Your task to perform on an android device: Open privacy settings Image 0: 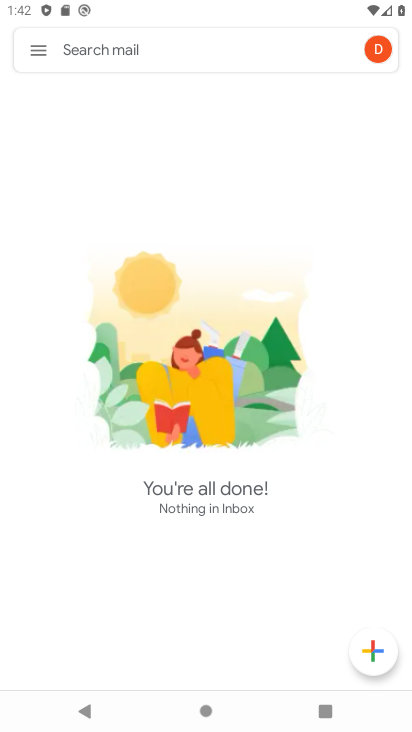
Step 0: press back button
Your task to perform on an android device: Open privacy settings Image 1: 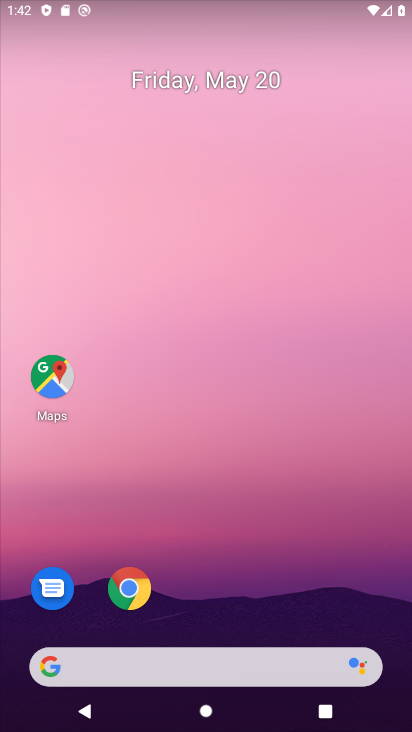
Step 1: drag from (286, 663) to (137, 9)
Your task to perform on an android device: Open privacy settings Image 2: 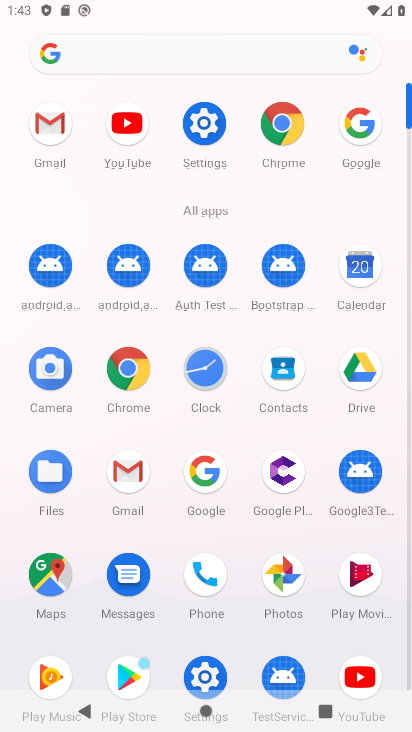
Step 2: click (202, 121)
Your task to perform on an android device: Open privacy settings Image 3: 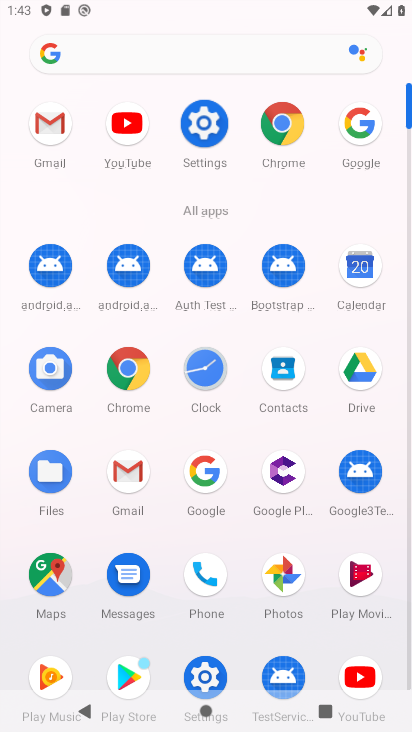
Step 3: click (197, 126)
Your task to perform on an android device: Open privacy settings Image 4: 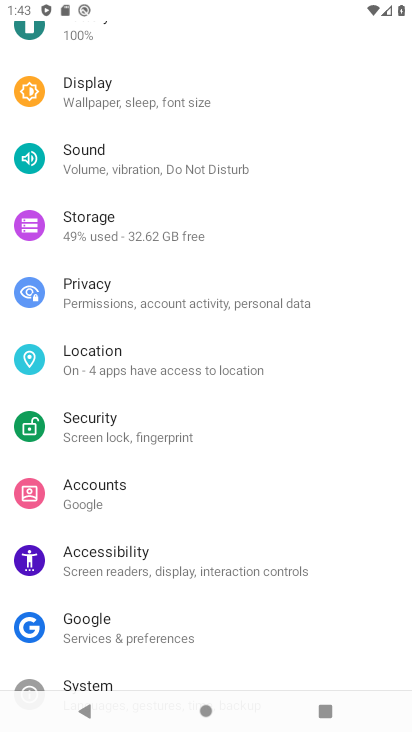
Step 4: click (93, 279)
Your task to perform on an android device: Open privacy settings Image 5: 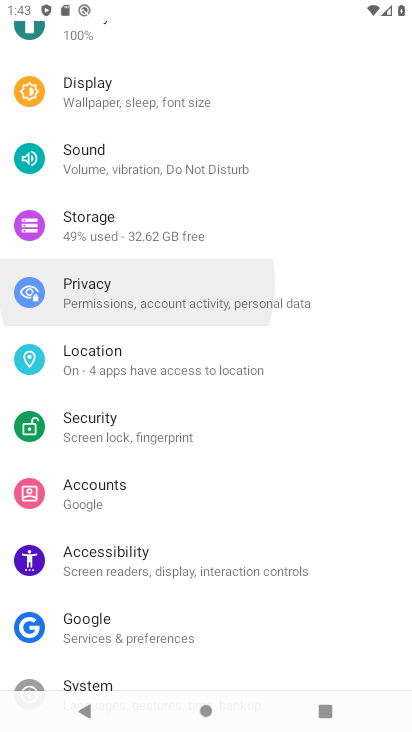
Step 5: click (93, 280)
Your task to perform on an android device: Open privacy settings Image 6: 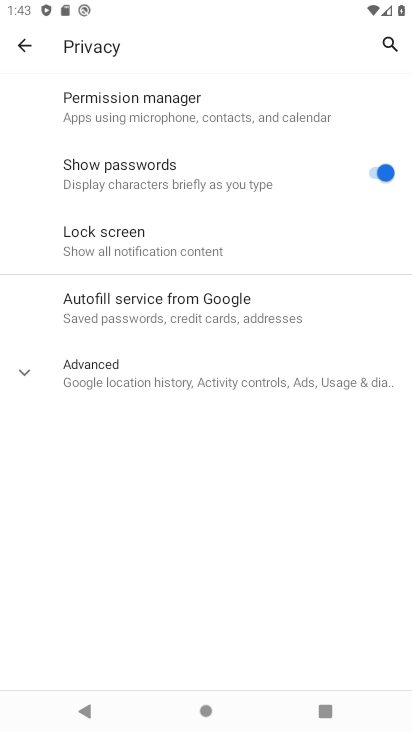
Step 6: task complete